Your task to perform on an android device: change your default location settings in chrome Image 0: 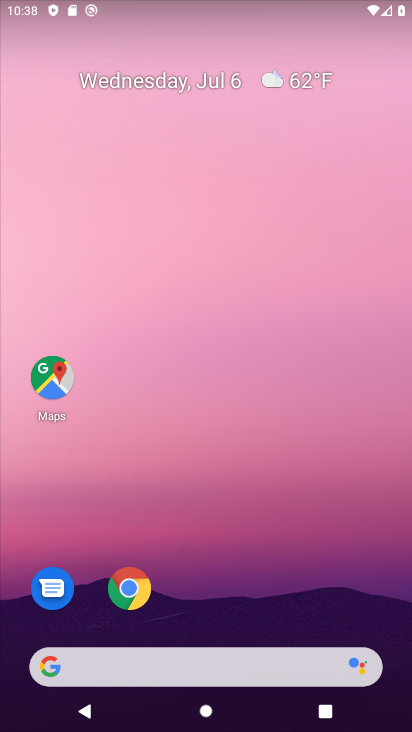
Step 0: click (129, 587)
Your task to perform on an android device: change your default location settings in chrome Image 1: 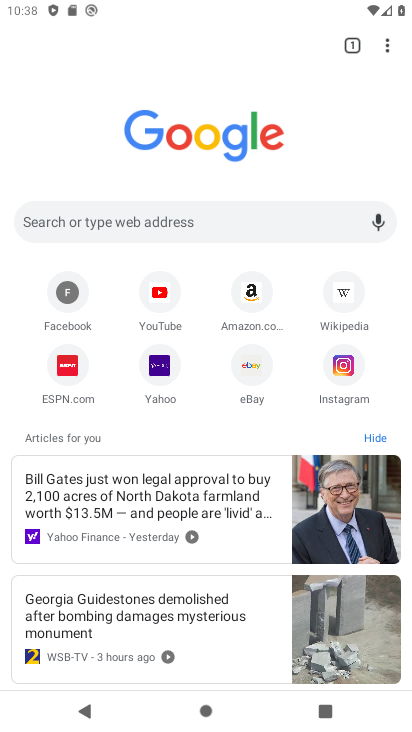
Step 1: click (387, 54)
Your task to perform on an android device: change your default location settings in chrome Image 2: 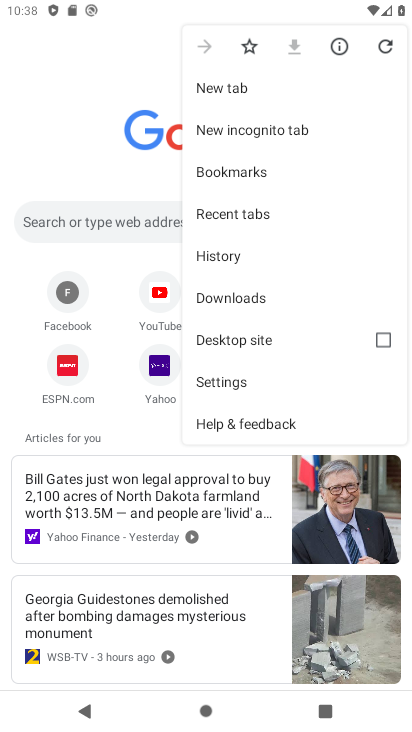
Step 2: click (223, 380)
Your task to perform on an android device: change your default location settings in chrome Image 3: 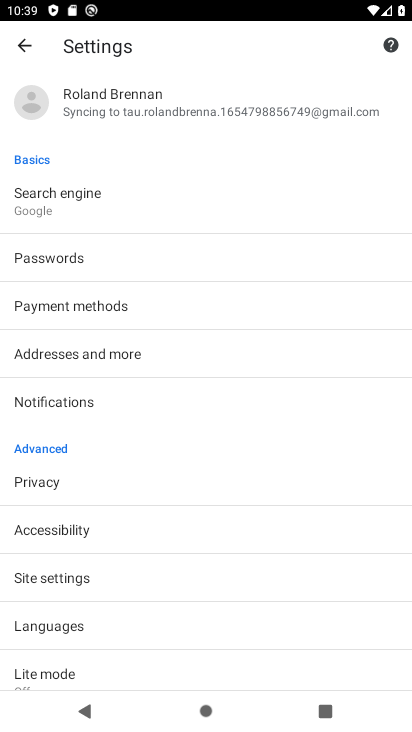
Step 3: click (64, 580)
Your task to perform on an android device: change your default location settings in chrome Image 4: 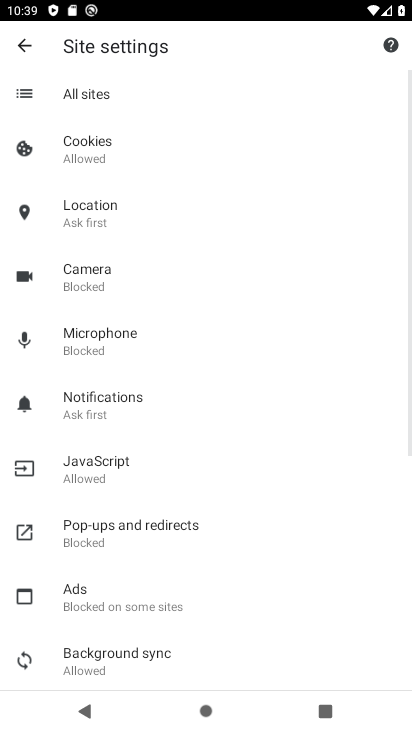
Step 4: click (88, 214)
Your task to perform on an android device: change your default location settings in chrome Image 5: 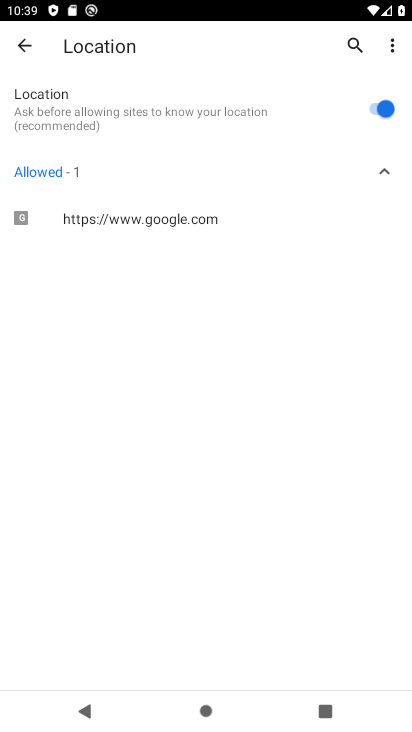
Step 5: click (377, 108)
Your task to perform on an android device: change your default location settings in chrome Image 6: 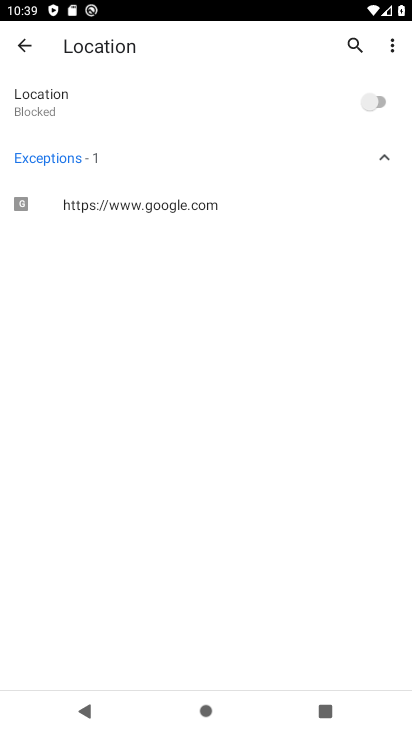
Step 6: task complete